Your task to perform on an android device: Go to Yahoo.com Image 0: 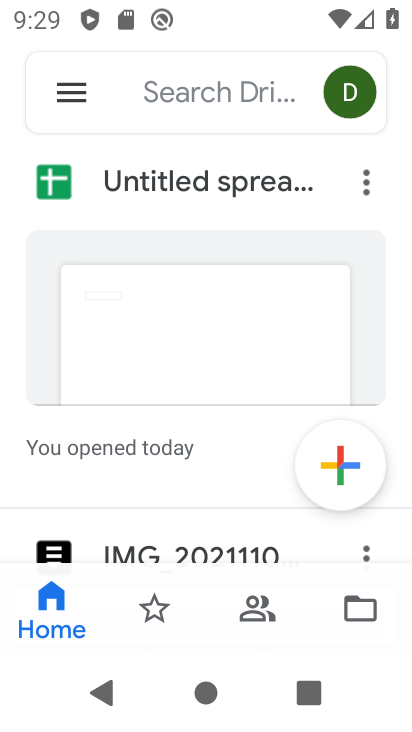
Step 0: press home button
Your task to perform on an android device: Go to Yahoo.com Image 1: 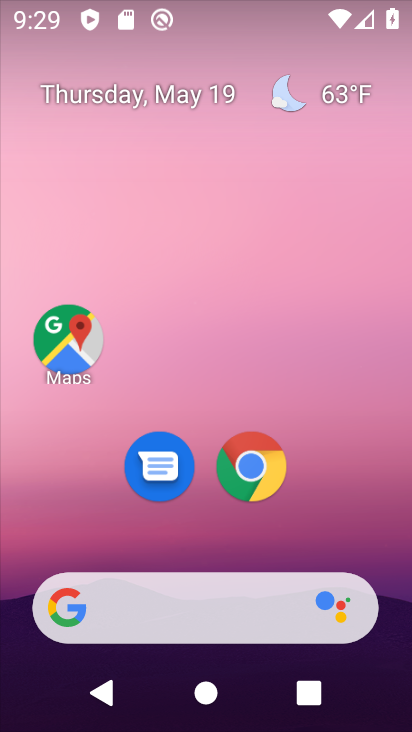
Step 1: drag from (389, 642) to (329, 19)
Your task to perform on an android device: Go to Yahoo.com Image 2: 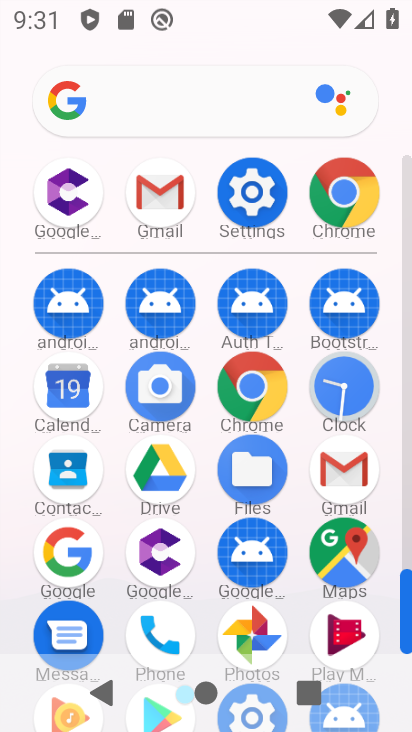
Step 2: click (350, 214)
Your task to perform on an android device: Go to Yahoo.com Image 3: 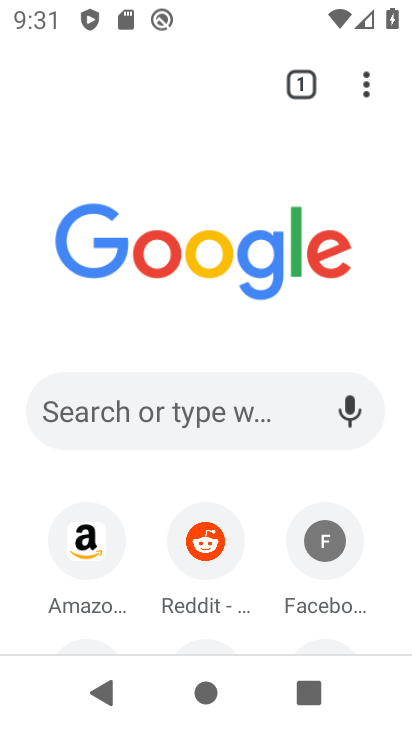
Step 3: drag from (163, 558) to (162, 156)
Your task to perform on an android device: Go to Yahoo.com Image 4: 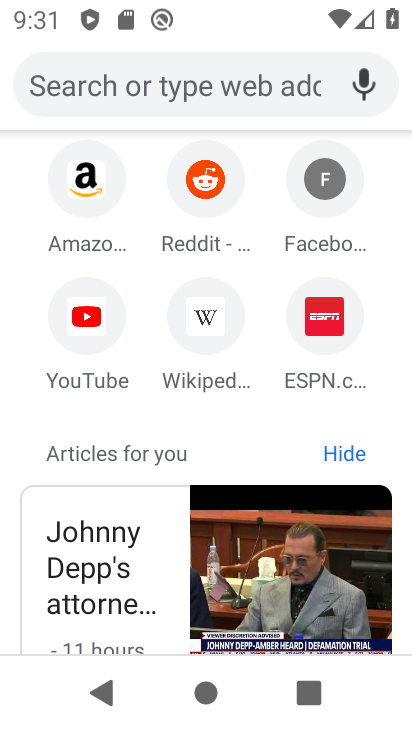
Step 4: click (181, 79)
Your task to perform on an android device: Go to Yahoo.com Image 5: 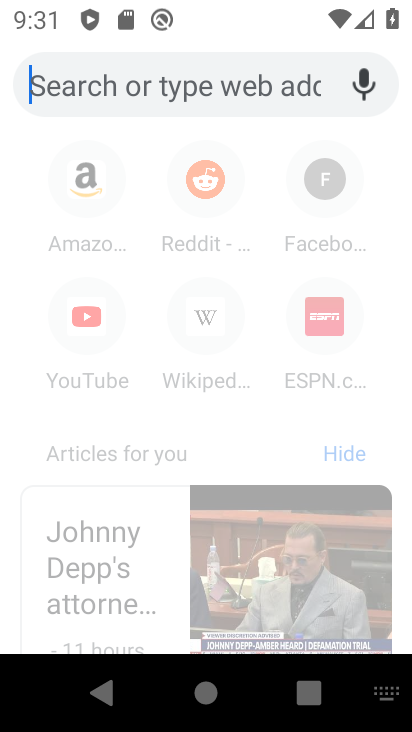
Step 5: type "yahoo.com"
Your task to perform on an android device: Go to Yahoo.com Image 6: 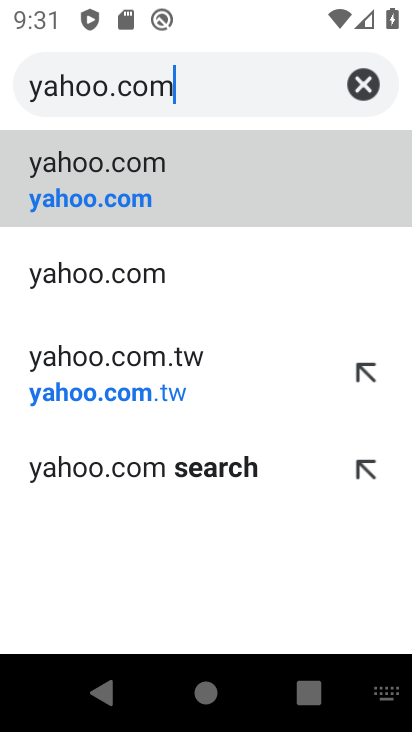
Step 6: click (228, 172)
Your task to perform on an android device: Go to Yahoo.com Image 7: 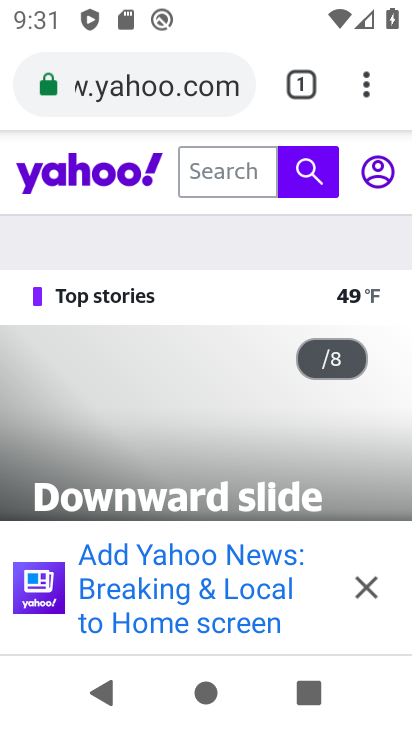
Step 7: task complete